Your task to perform on an android device: toggle location history Image 0: 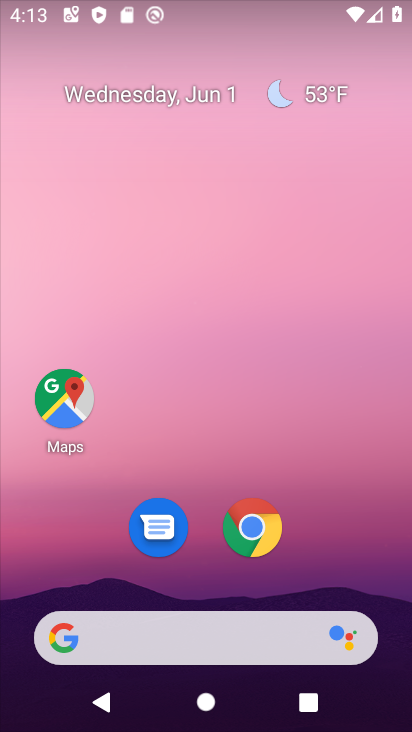
Step 0: drag from (336, 565) to (341, 96)
Your task to perform on an android device: toggle location history Image 1: 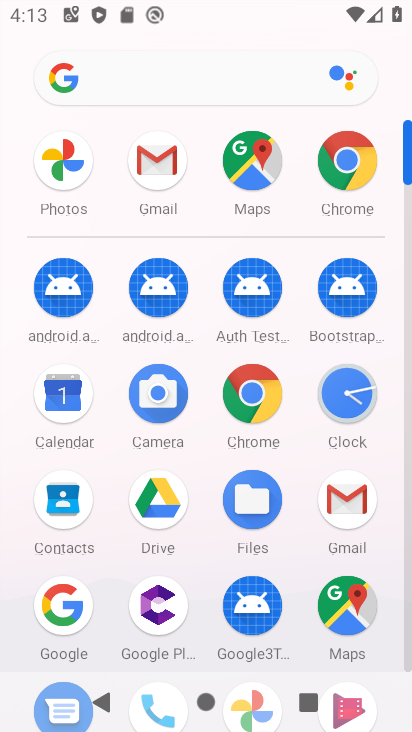
Step 1: click (341, 594)
Your task to perform on an android device: toggle location history Image 2: 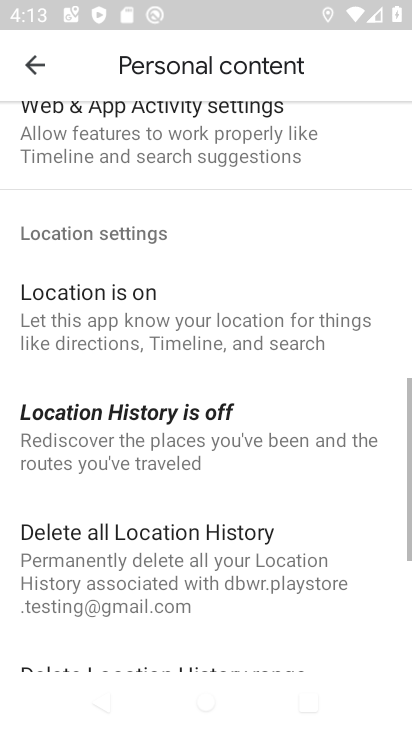
Step 2: click (117, 414)
Your task to perform on an android device: toggle location history Image 3: 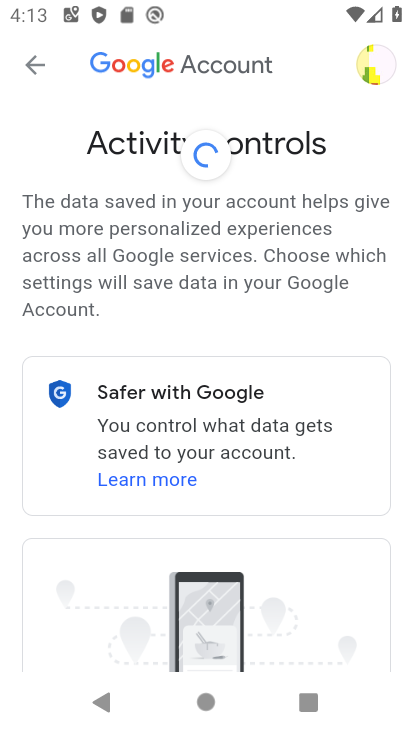
Step 3: drag from (265, 599) to (305, 166)
Your task to perform on an android device: toggle location history Image 4: 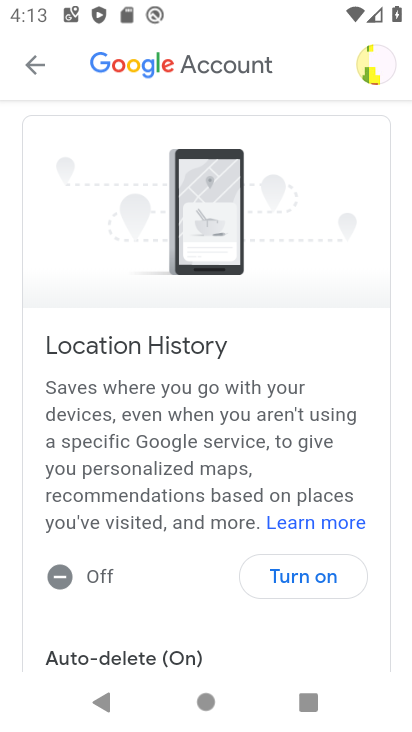
Step 4: click (310, 572)
Your task to perform on an android device: toggle location history Image 5: 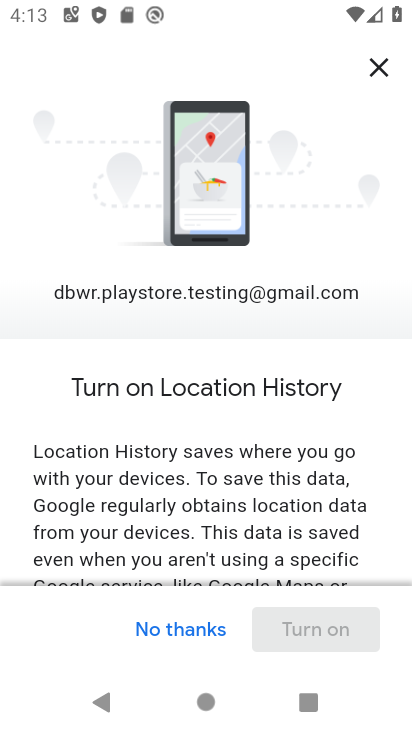
Step 5: drag from (292, 543) to (340, 126)
Your task to perform on an android device: toggle location history Image 6: 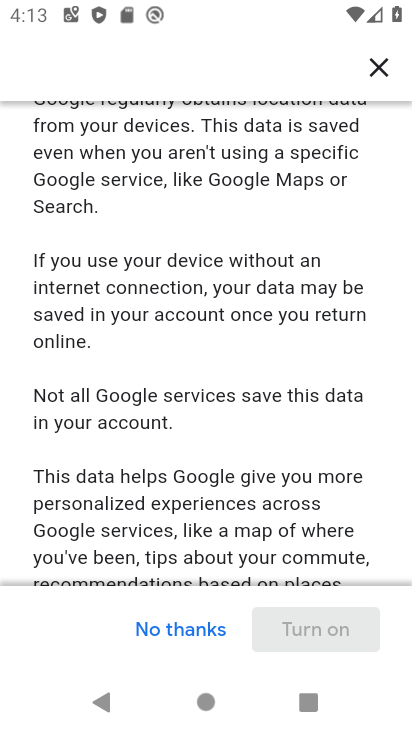
Step 6: drag from (209, 538) to (286, 71)
Your task to perform on an android device: toggle location history Image 7: 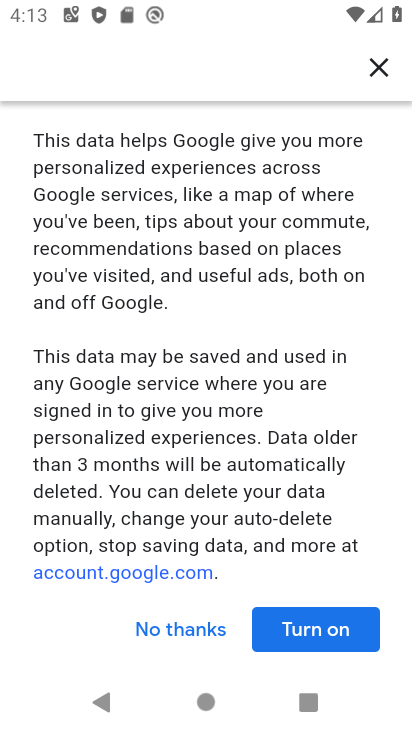
Step 7: click (320, 624)
Your task to perform on an android device: toggle location history Image 8: 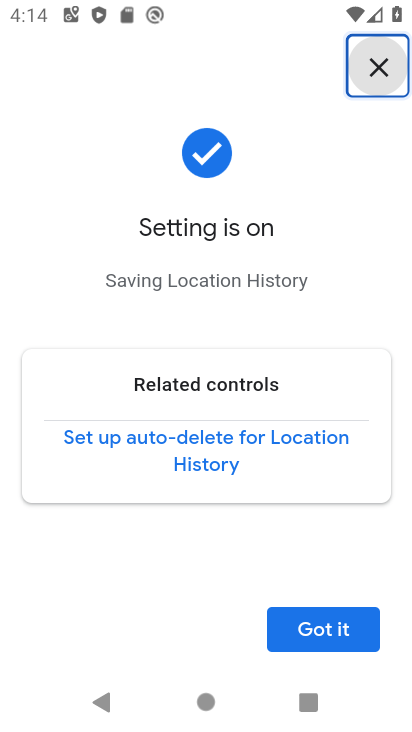
Step 8: click (332, 620)
Your task to perform on an android device: toggle location history Image 9: 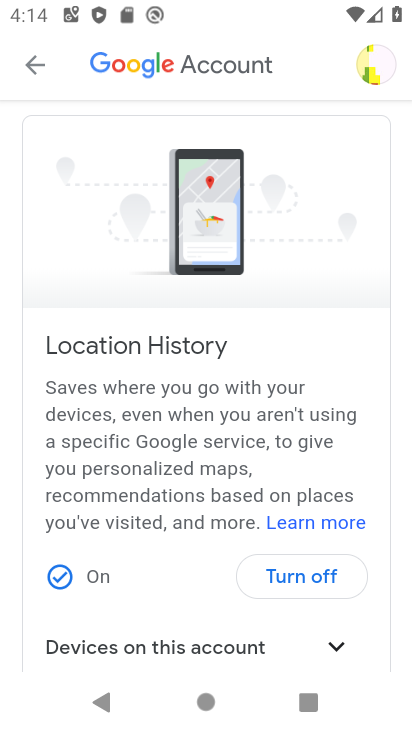
Step 9: task complete